Your task to perform on an android device: uninstall "Google Play services" Image 0: 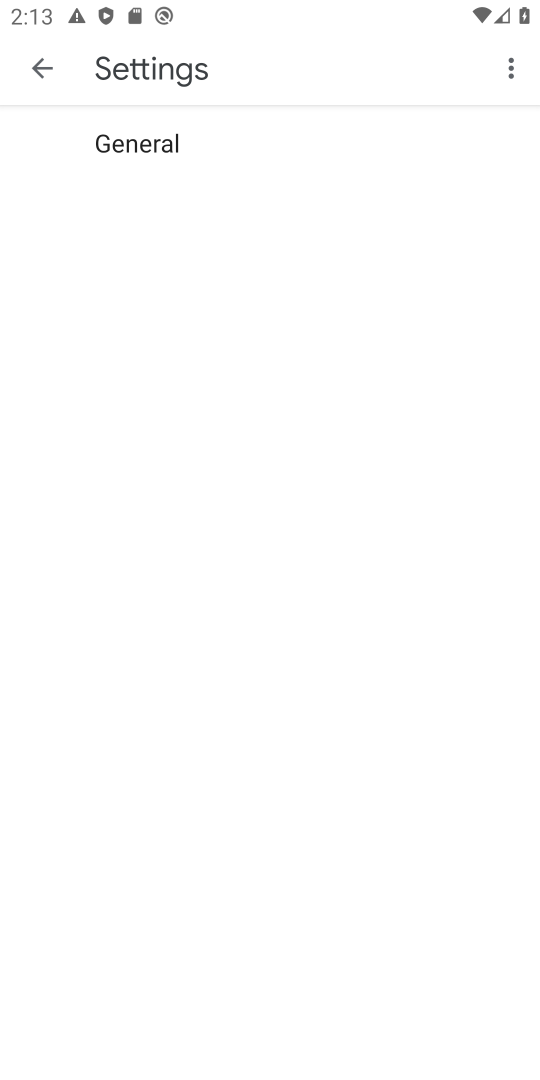
Step 0: press home button
Your task to perform on an android device: uninstall "Google Play services" Image 1: 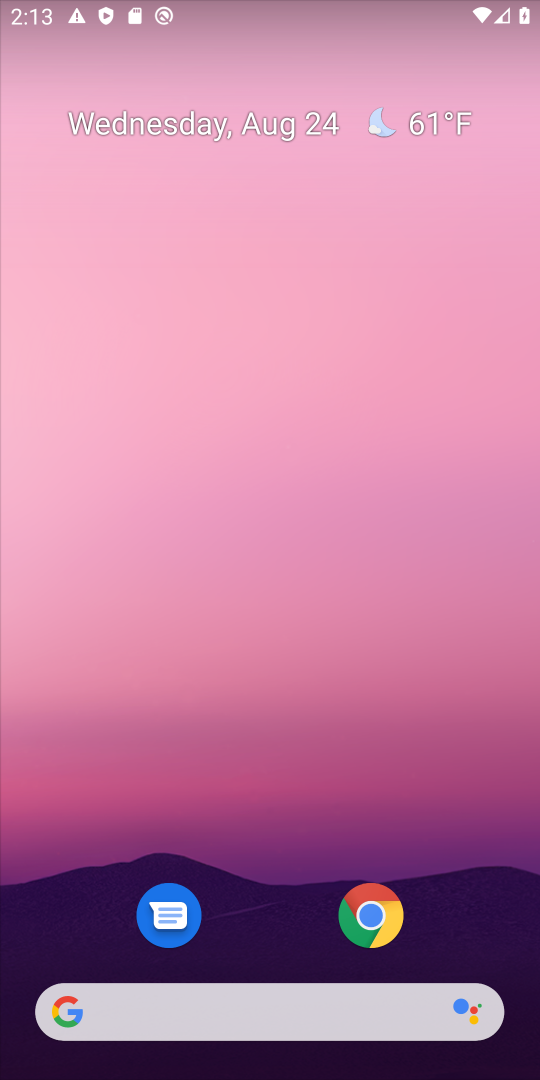
Step 1: drag from (298, 835) to (283, 177)
Your task to perform on an android device: uninstall "Google Play services" Image 2: 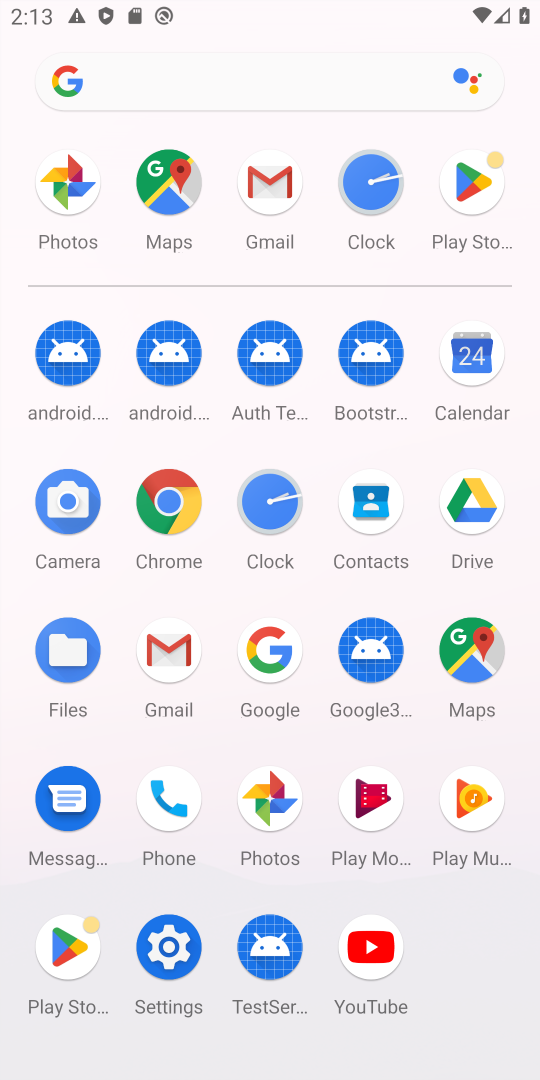
Step 2: click (482, 201)
Your task to perform on an android device: uninstall "Google Play services" Image 3: 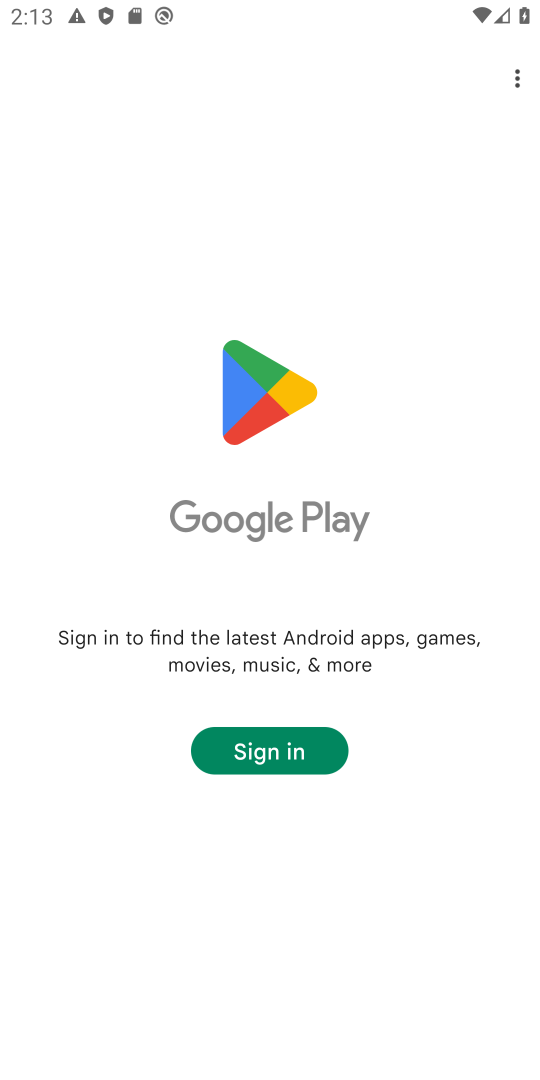
Step 3: task complete